Your task to perform on an android device: Go to Amazon Image 0: 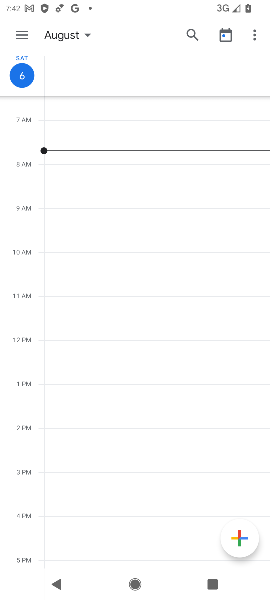
Step 0: press home button
Your task to perform on an android device: Go to Amazon Image 1: 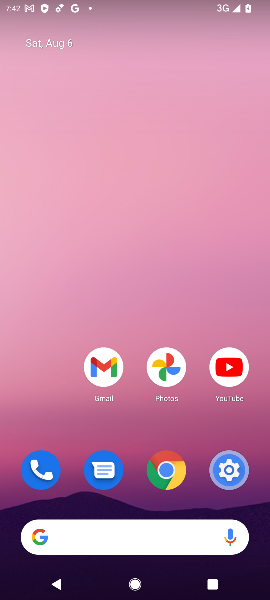
Step 1: drag from (96, 501) to (116, 94)
Your task to perform on an android device: Go to Amazon Image 2: 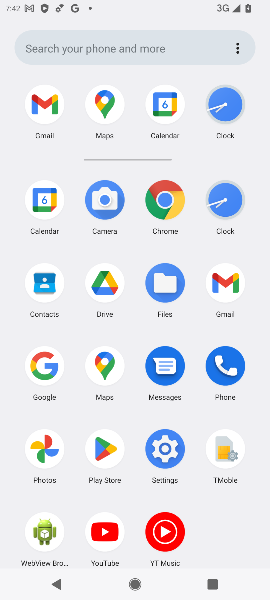
Step 2: click (174, 448)
Your task to perform on an android device: Go to Amazon Image 3: 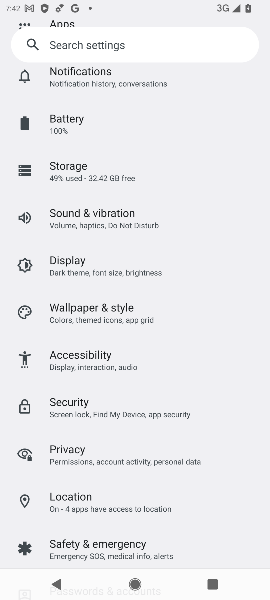
Step 3: press home button
Your task to perform on an android device: Go to Amazon Image 4: 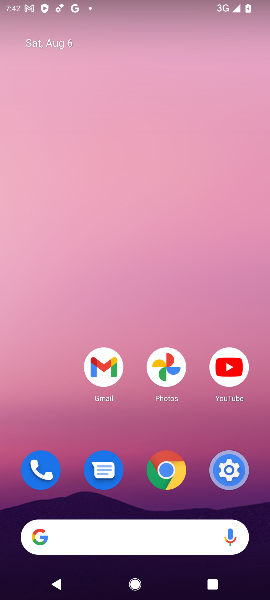
Step 4: drag from (155, 549) to (187, 68)
Your task to perform on an android device: Go to Amazon Image 5: 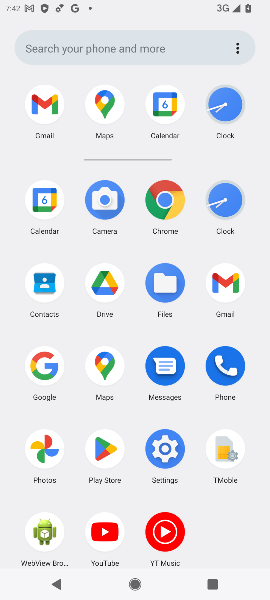
Step 5: click (167, 209)
Your task to perform on an android device: Go to Amazon Image 6: 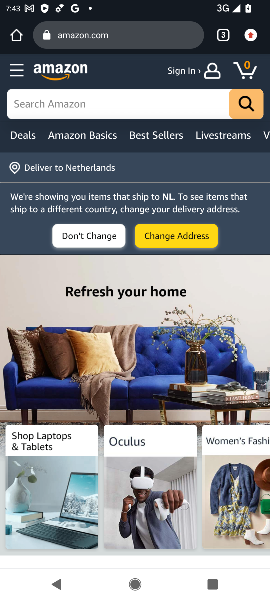
Step 6: task complete